Your task to perform on an android device: add a label to a message in the gmail app Image 0: 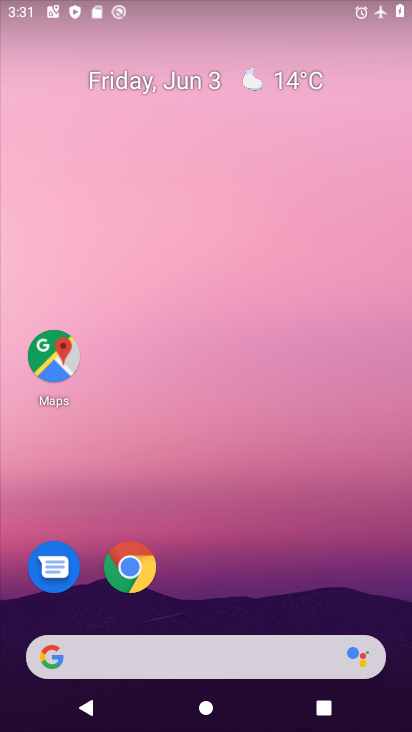
Step 0: drag from (233, 675) to (132, 144)
Your task to perform on an android device: add a label to a message in the gmail app Image 1: 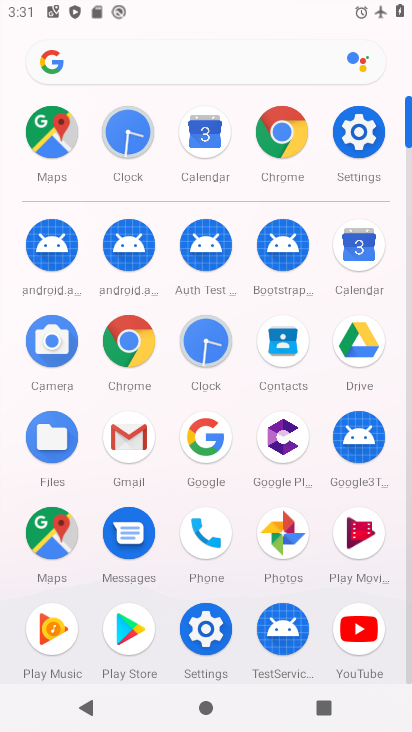
Step 1: click (140, 440)
Your task to perform on an android device: add a label to a message in the gmail app Image 2: 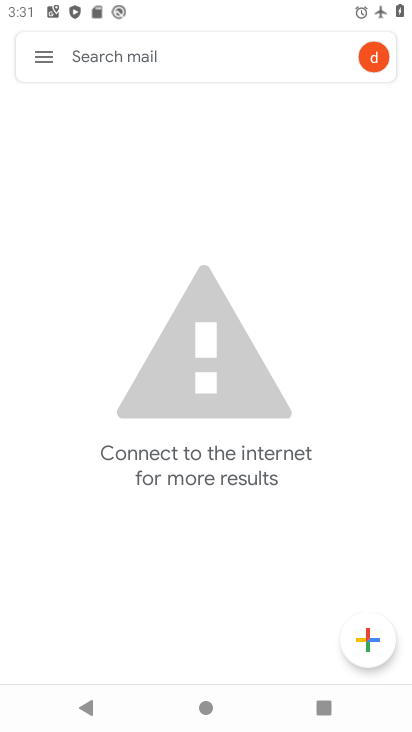
Step 2: click (33, 54)
Your task to perform on an android device: add a label to a message in the gmail app Image 3: 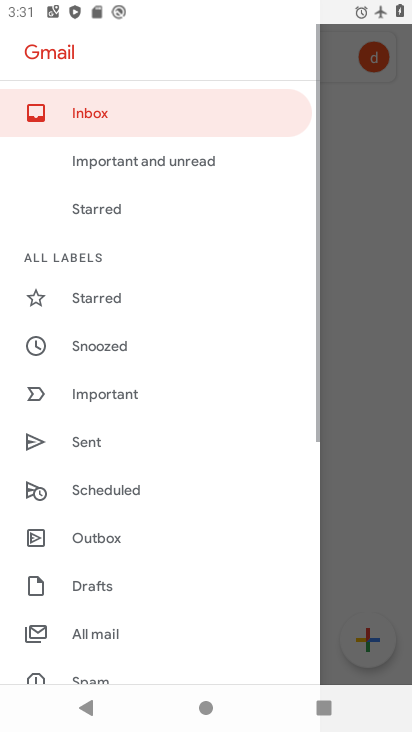
Step 3: drag from (129, 550) to (188, 271)
Your task to perform on an android device: add a label to a message in the gmail app Image 4: 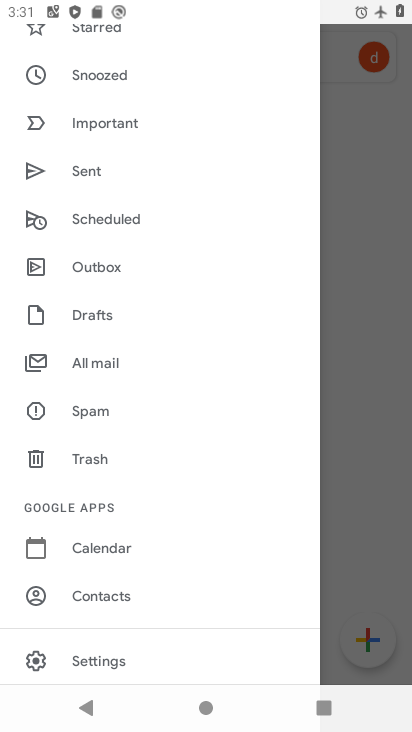
Step 4: click (112, 656)
Your task to perform on an android device: add a label to a message in the gmail app Image 5: 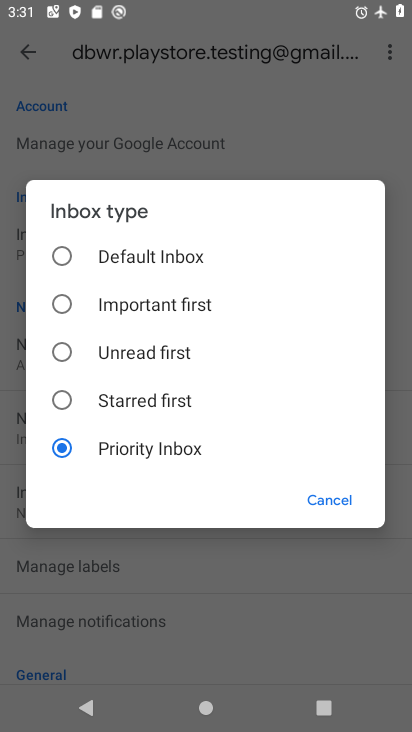
Step 5: click (329, 504)
Your task to perform on an android device: add a label to a message in the gmail app Image 6: 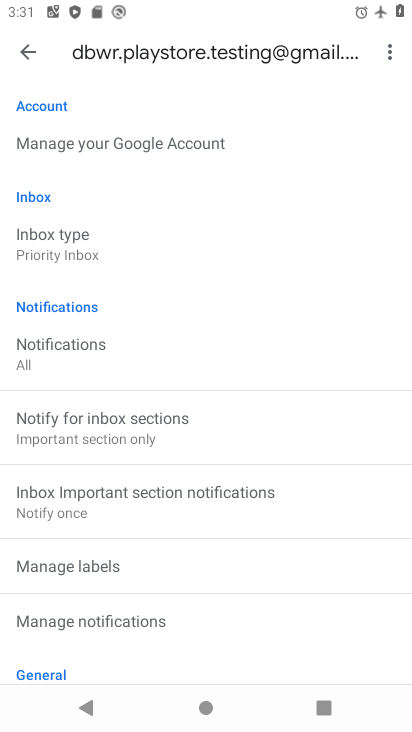
Step 6: click (132, 556)
Your task to perform on an android device: add a label to a message in the gmail app Image 7: 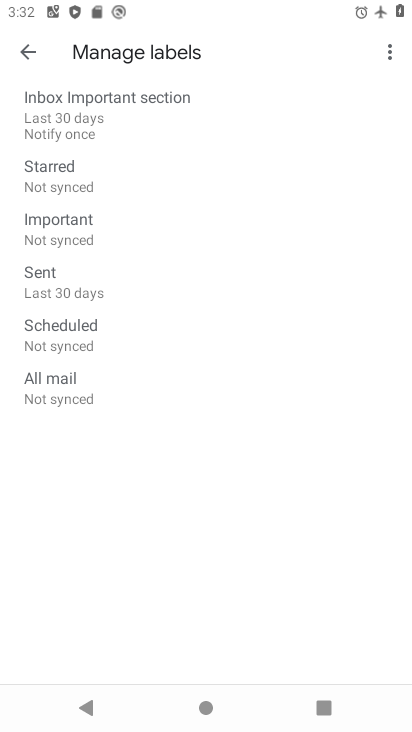
Step 7: click (71, 221)
Your task to perform on an android device: add a label to a message in the gmail app Image 8: 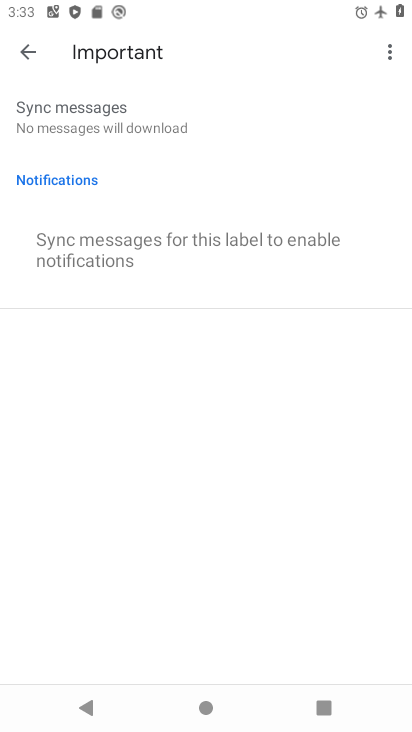
Step 8: task complete